Your task to perform on an android device: Add "asus rog" to the cart on bestbuy, then select checkout. Image 0: 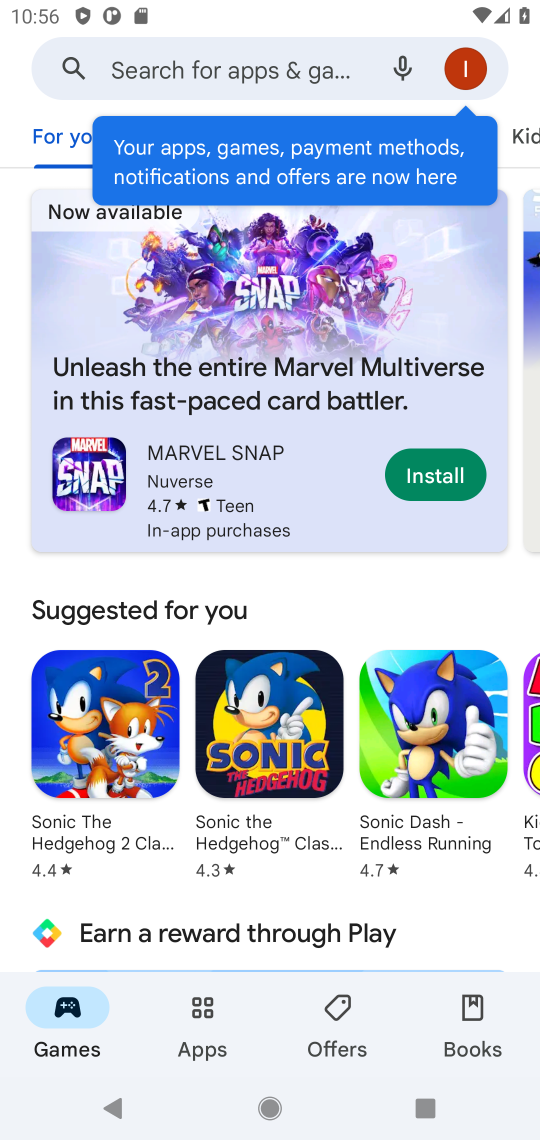
Step 0: press home button
Your task to perform on an android device: Add "asus rog" to the cart on bestbuy, then select checkout. Image 1: 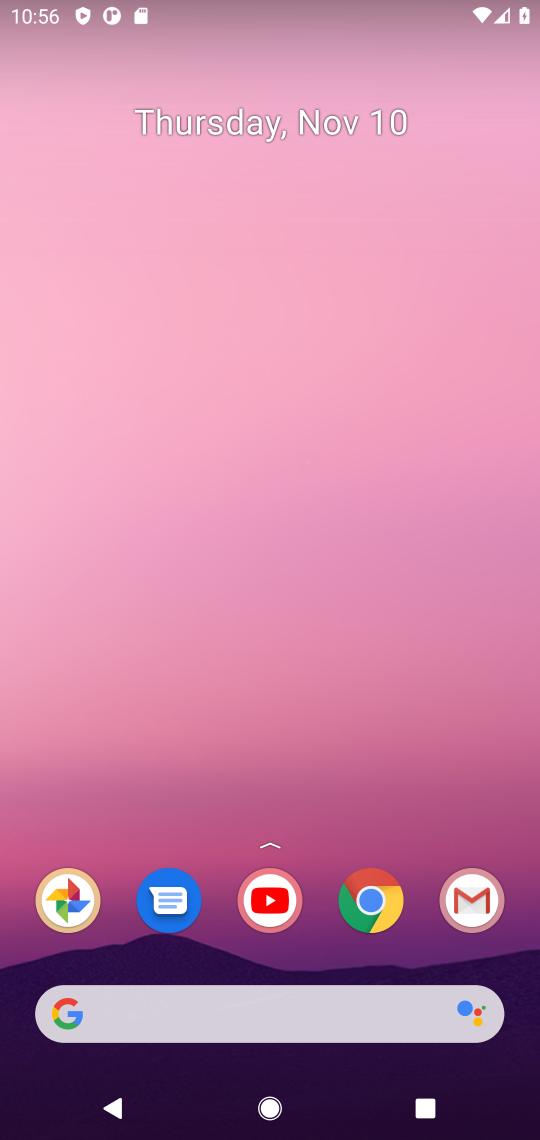
Step 1: click (369, 906)
Your task to perform on an android device: Add "asus rog" to the cart on bestbuy, then select checkout. Image 2: 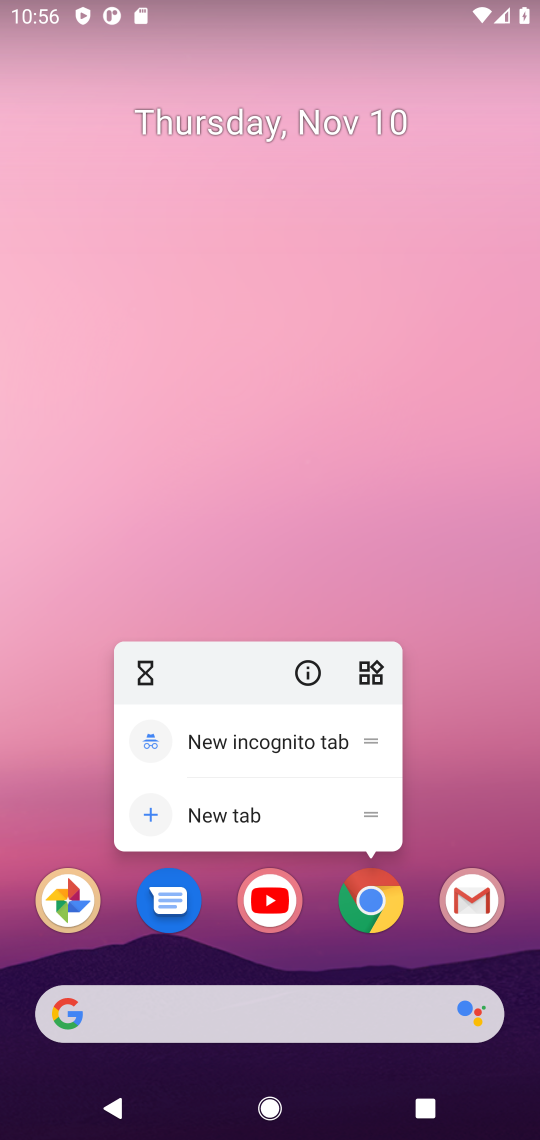
Step 2: click (369, 906)
Your task to perform on an android device: Add "asus rog" to the cart on bestbuy, then select checkout. Image 3: 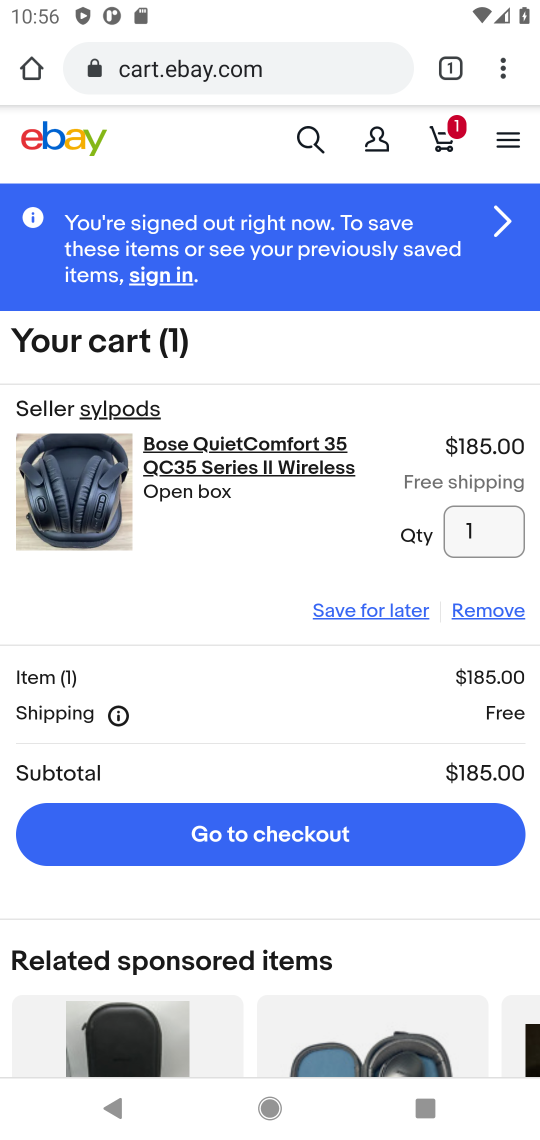
Step 3: click (269, 67)
Your task to perform on an android device: Add "asus rog" to the cart on bestbuy, then select checkout. Image 4: 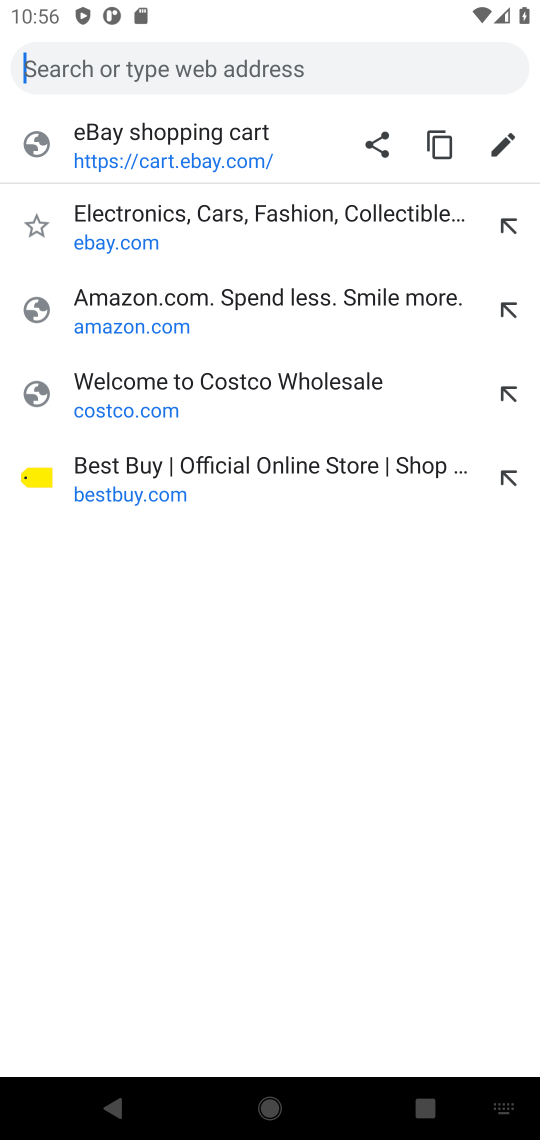
Step 4: click (134, 487)
Your task to perform on an android device: Add "asus rog" to the cart on bestbuy, then select checkout. Image 5: 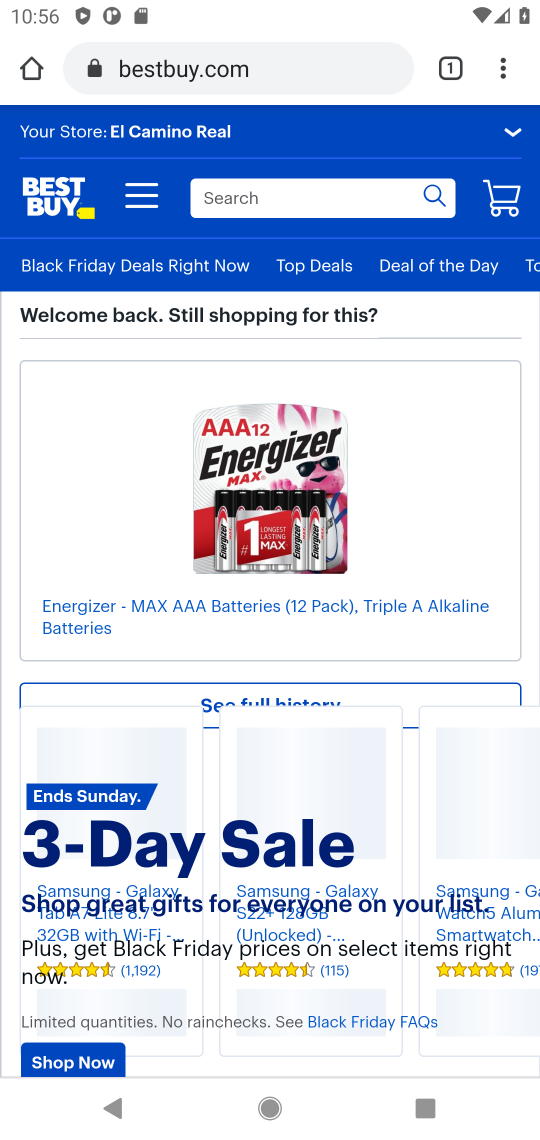
Step 5: click (259, 179)
Your task to perform on an android device: Add "asus rog" to the cart on bestbuy, then select checkout. Image 6: 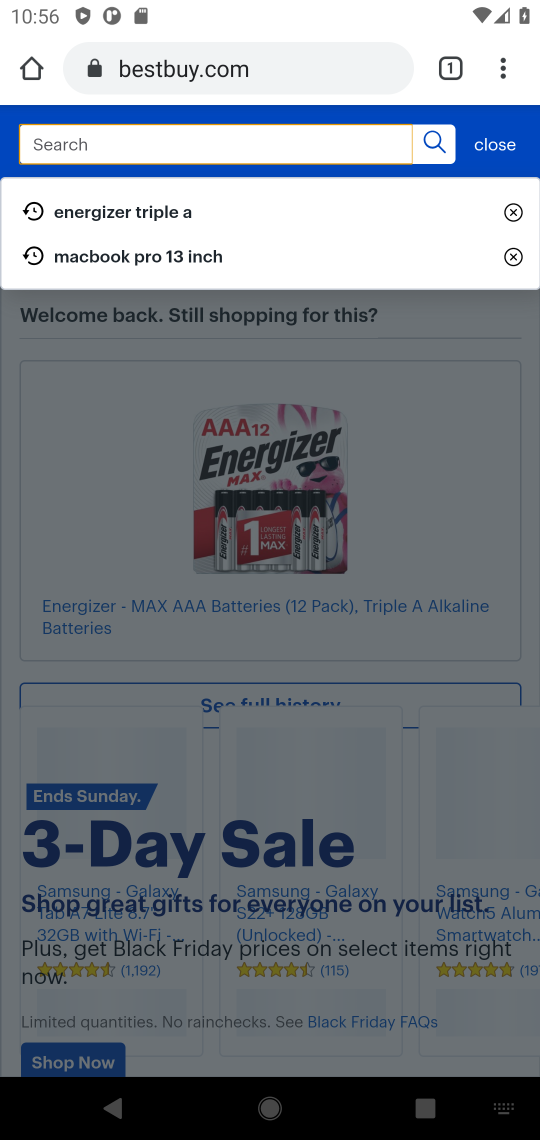
Step 6: press enter
Your task to perform on an android device: Add "asus rog" to the cart on bestbuy, then select checkout. Image 7: 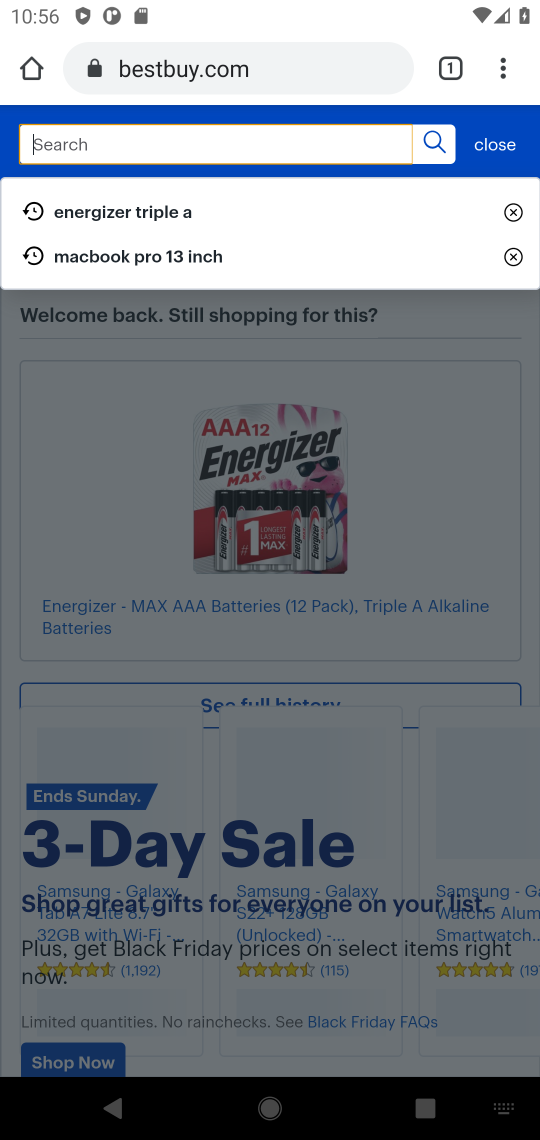
Step 7: type "asus rog"
Your task to perform on an android device: Add "asus rog" to the cart on bestbuy, then select checkout. Image 8: 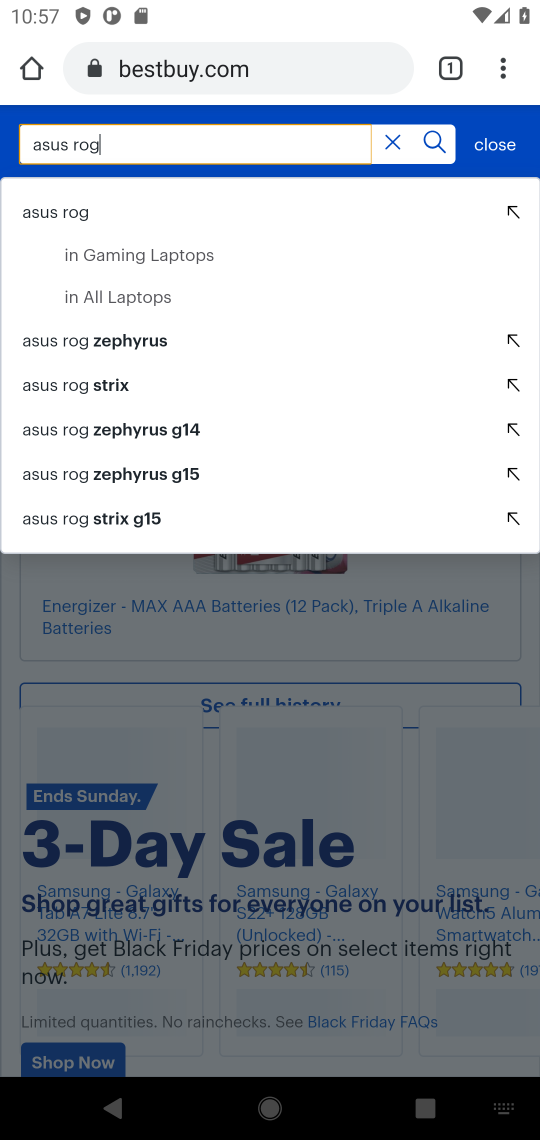
Step 8: press enter
Your task to perform on an android device: Add "asus rog" to the cart on bestbuy, then select checkout. Image 9: 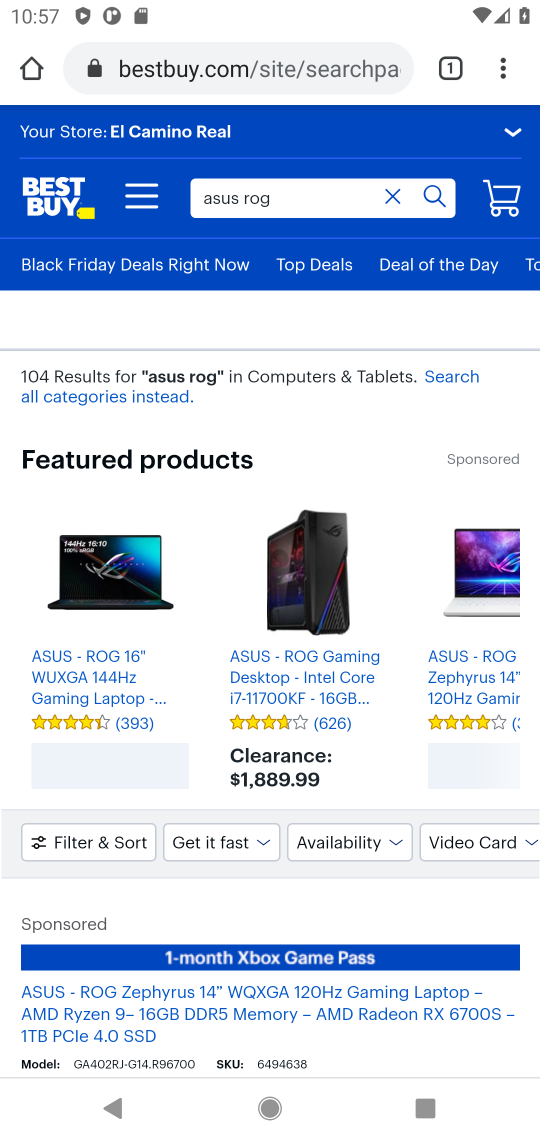
Step 9: drag from (325, 840) to (406, 262)
Your task to perform on an android device: Add "asus rog" to the cart on bestbuy, then select checkout. Image 10: 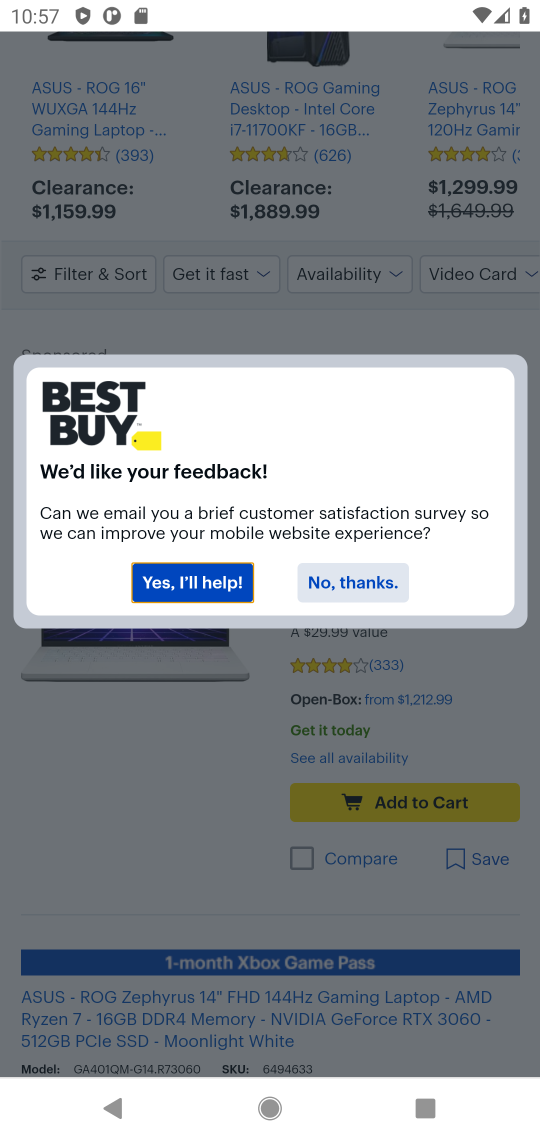
Step 10: click (362, 582)
Your task to perform on an android device: Add "asus rog" to the cart on bestbuy, then select checkout. Image 11: 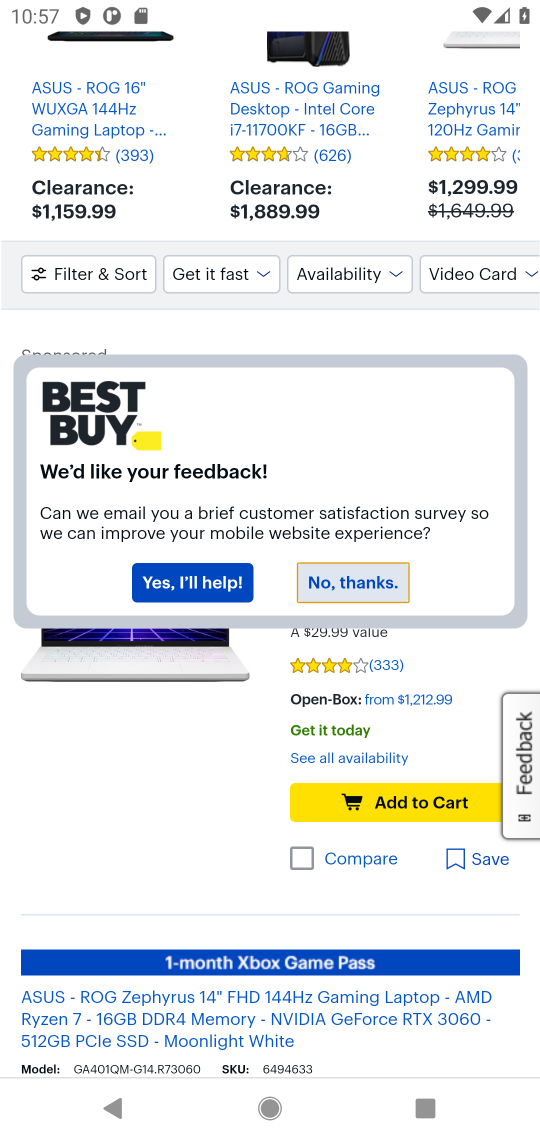
Step 11: click (360, 580)
Your task to perform on an android device: Add "asus rog" to the cart on bestbuy, then select checkout. Image 12: 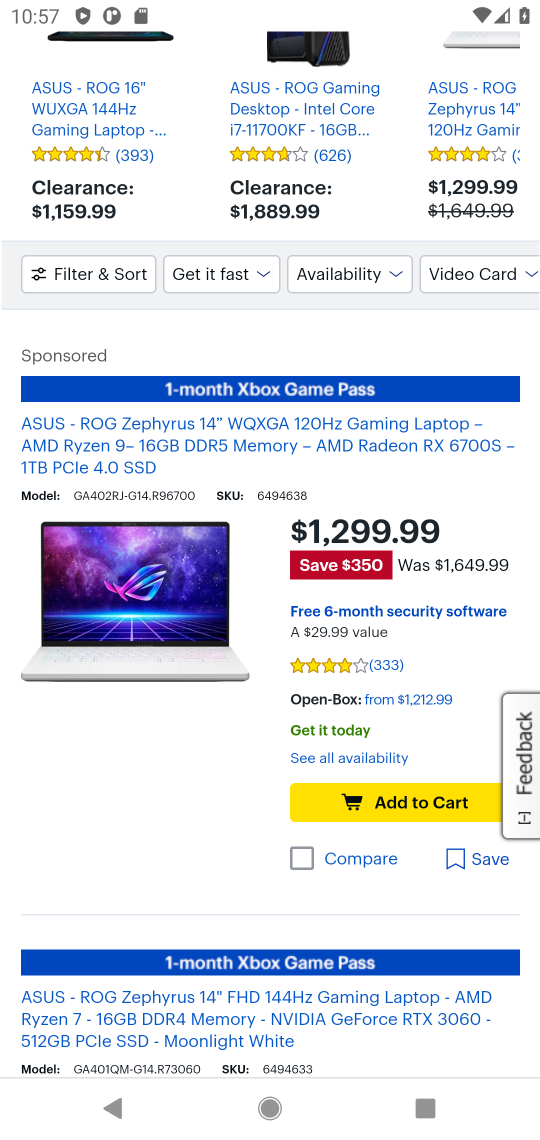
Step 12: click (426, 805)
Your task to perform on an android device: Add "asus rog" to the cart on bestbuy, then select checkout. Image 13: 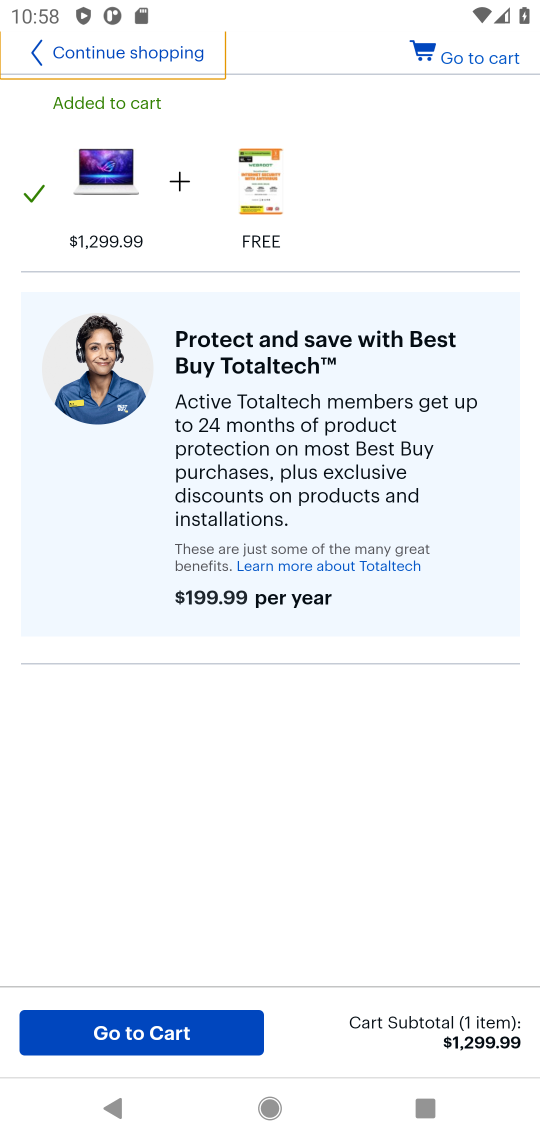
Step 13: click (479, 54)
Your task to perform on an android device: Add "asus rog" to the cart on bestbuy, then select checkout. Image 14: 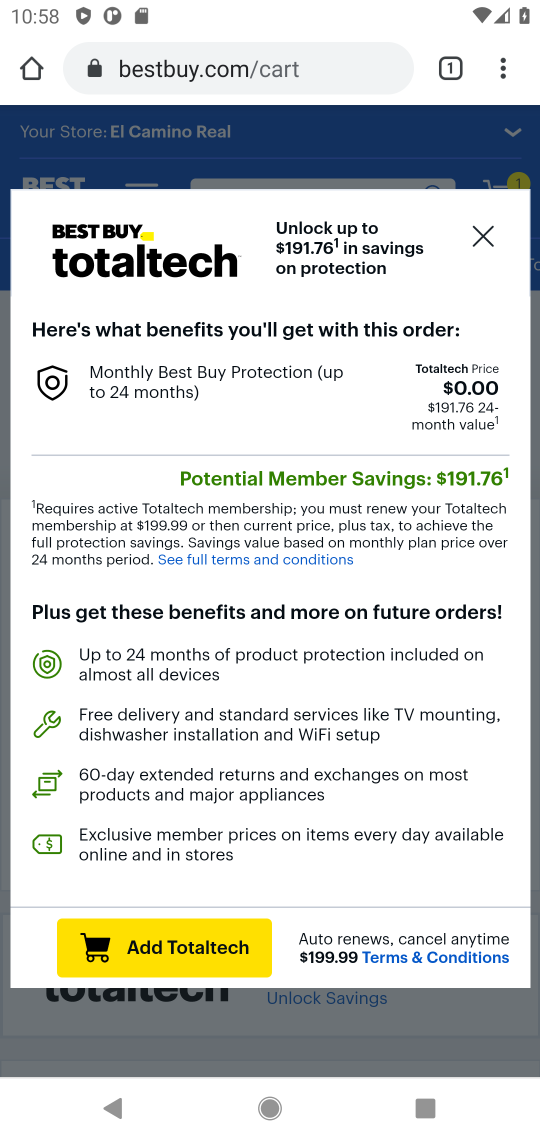
Step 14: click (479, 233)
Your task to perform on an android device: Add "asus rog" to the cart on bestbuy, then select checkout. Image 15: 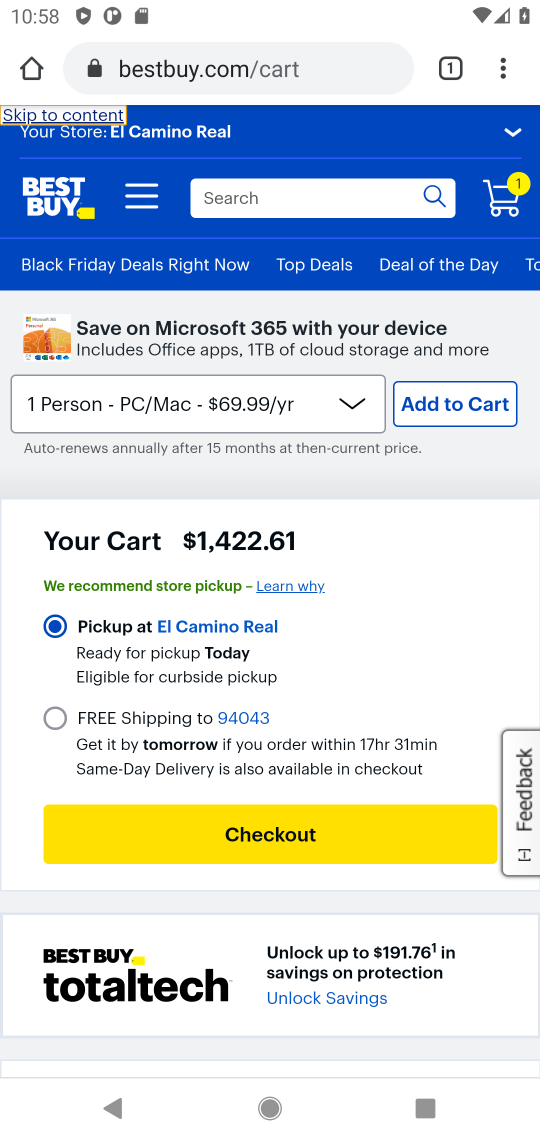
Step 15: click (303, 828)
Your task to perform on an android device: Add "asus rog" to the cart on bestbuy, then select checkout. Image 16: 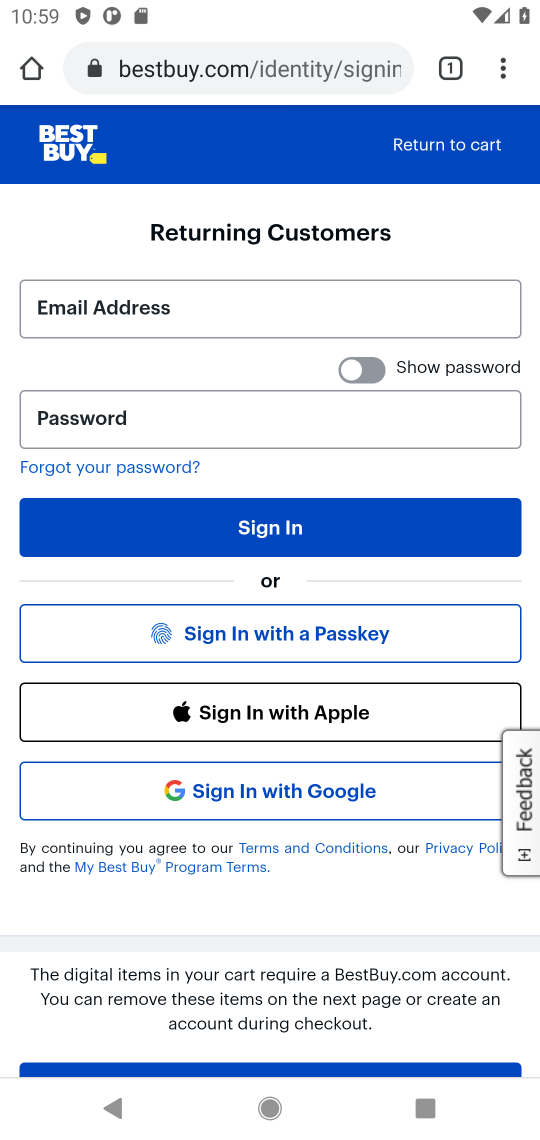
Step 16: task complete